Your task to perform on an android device: turn on improve location accuracy Image 0: 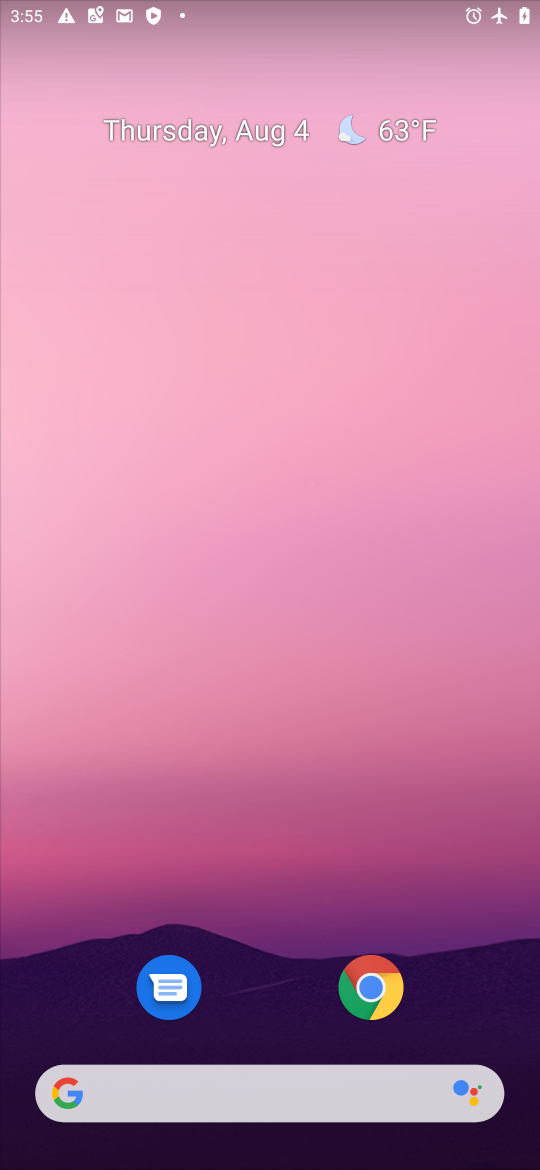
Step 0: drag from (255, 795) to (300, 73)
Your task to perform on an android device: turn on improve location accuracy Image 1: 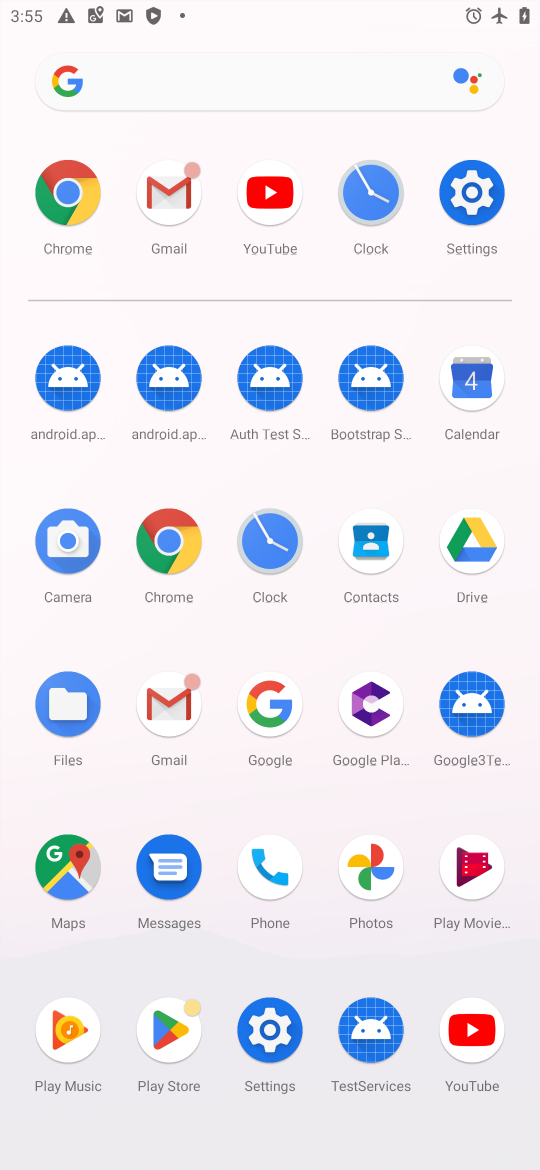
Step 1: click (480, 196)
Your task to perform on an android device: turn on improve location accuracy Image 2: 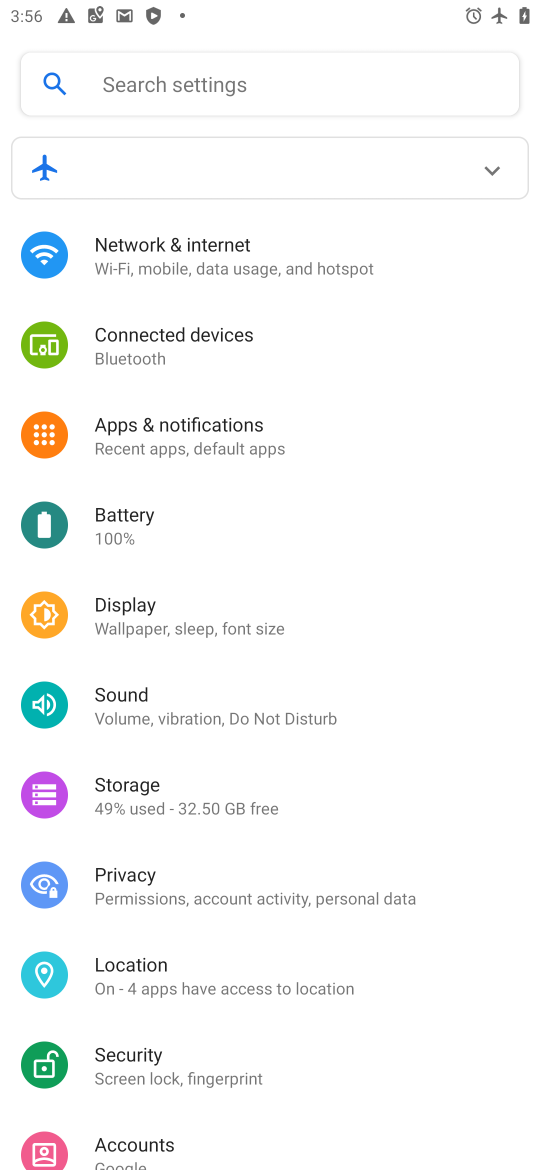
Step 2: click (120, 976)
Your task to perform on an android device: turn on improve location accuracy Image 3: 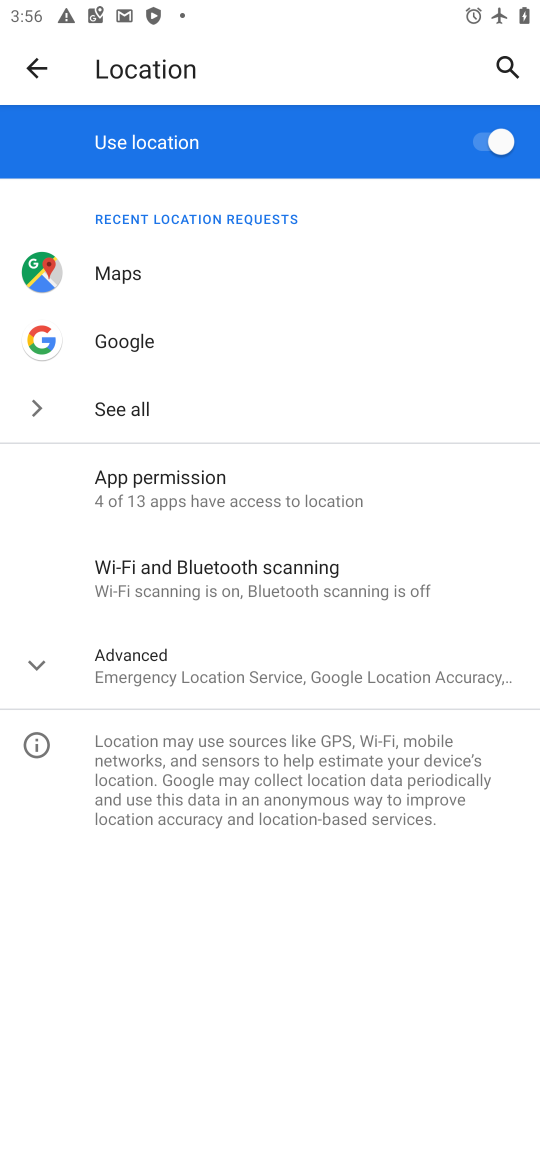
Step 3: click (145, 654)
Your task to perform on an android device: turn on improve location accuracy Image 4: 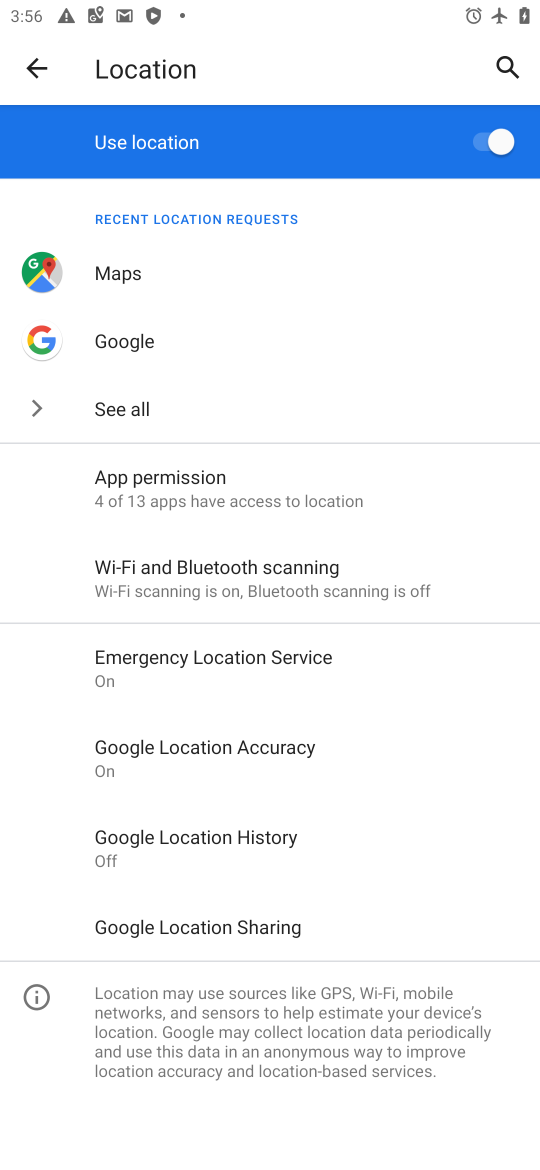
Step 4: click (156, 757)
Your task to perform on an android device: turn on improve location accuracy Image 5: 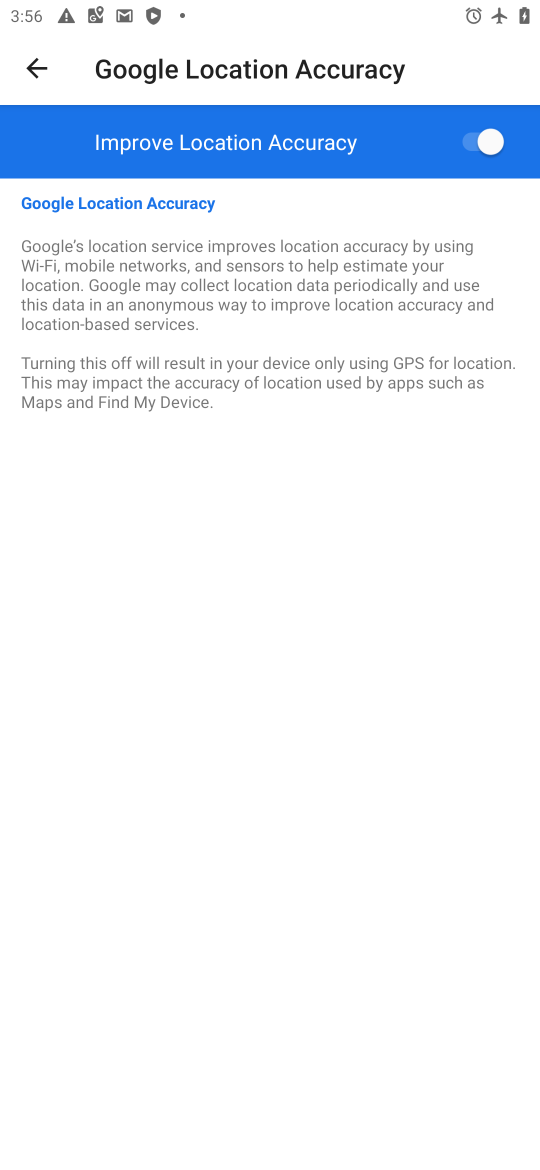
Step 5: task complete